Your task to perform on an android device: open sync settings in chrome Image 0: 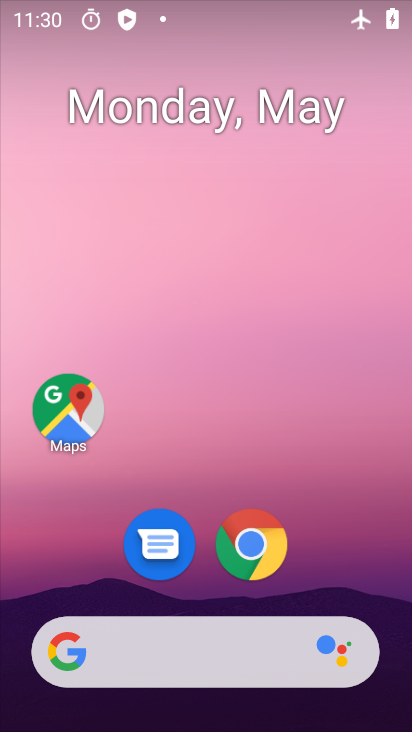
Step 0: drag from (353, 546) to (318, 190)
Your task to perform on an android device: open sync settings in chrome Image 1: 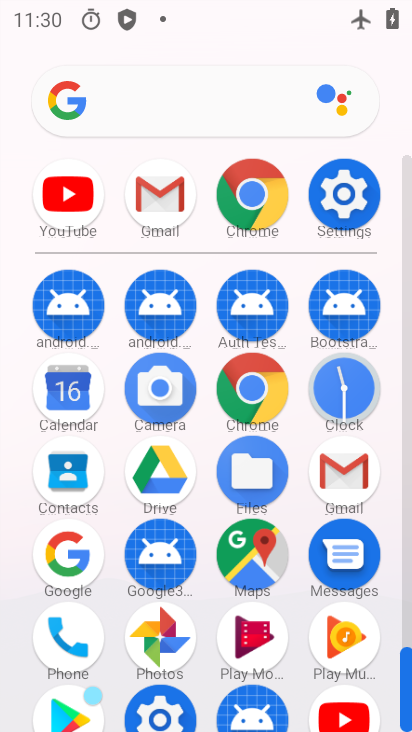
Step 1: click (251, 405)
Your task to perform on an android device: open sync settings in chrome Image 2: 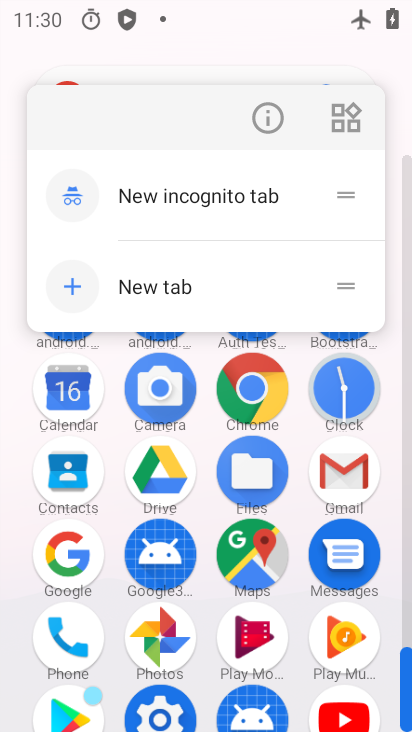
Step 2: click (252, 421)
Your task to perform on an android device: open sync settings in chrome Image 3: 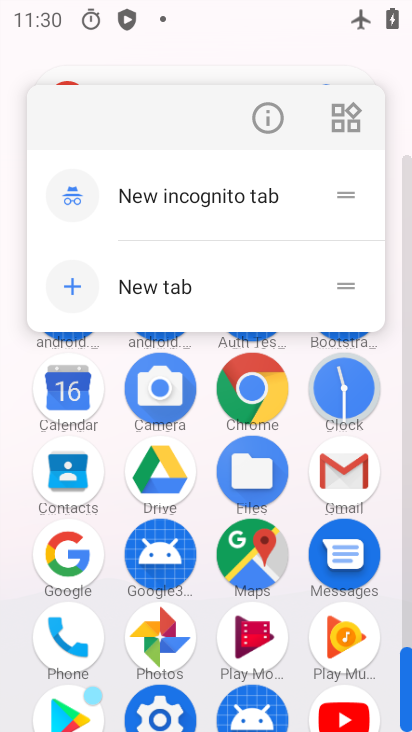
Step 3: click (252, 390)
Your task to perform on an android device: open sync settings in chrome Image 4: 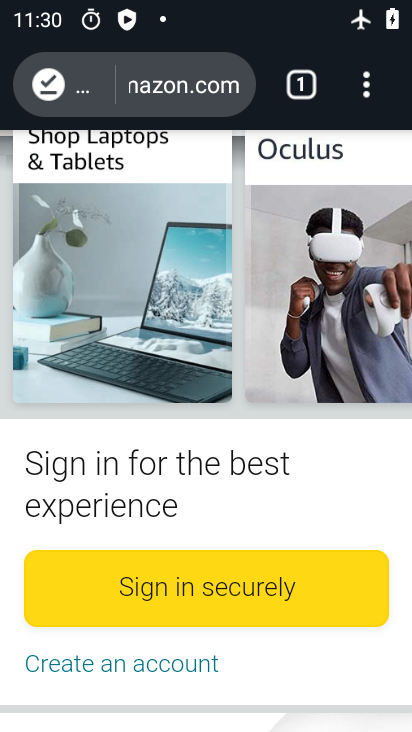
Step 4: drag from (366, 106) to (113, 608)
Your task to perform on an android device: open sync settings in chrome Image 5: 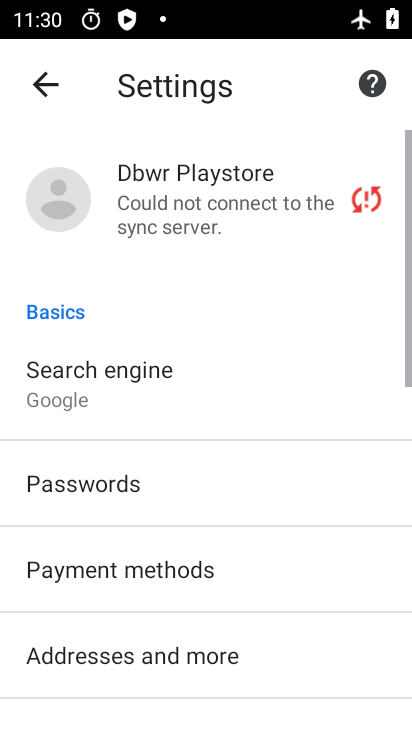
Step 5: drag from (248, 640) to (253, 307)
Your task to perform on an android device: open sync settings in chrome Image 6: 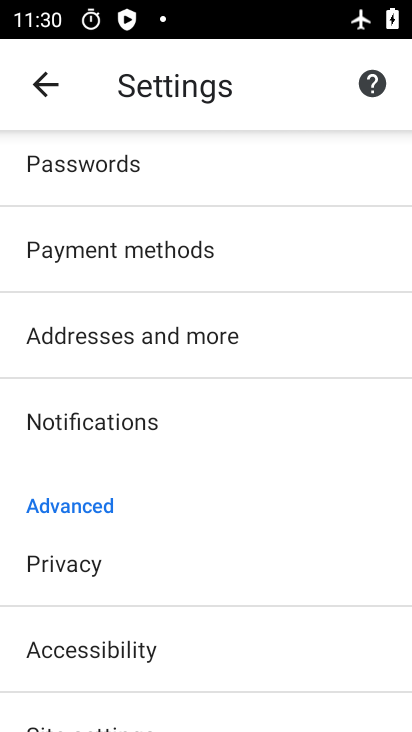
Step 6: drag from (188, 583) to (222, 323)
Your task to perform on an android device: open sync settings in chrome Image 7: 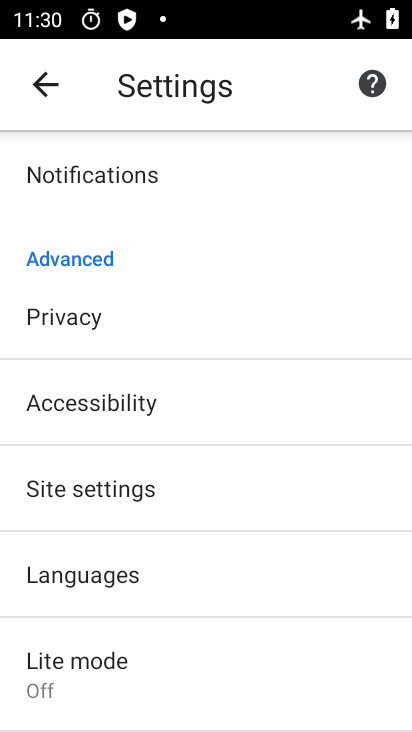
Step 7: drag from (183, 636) to (200, 336)
Your task to perform on an android device: open sync settings in chrome Image 8: 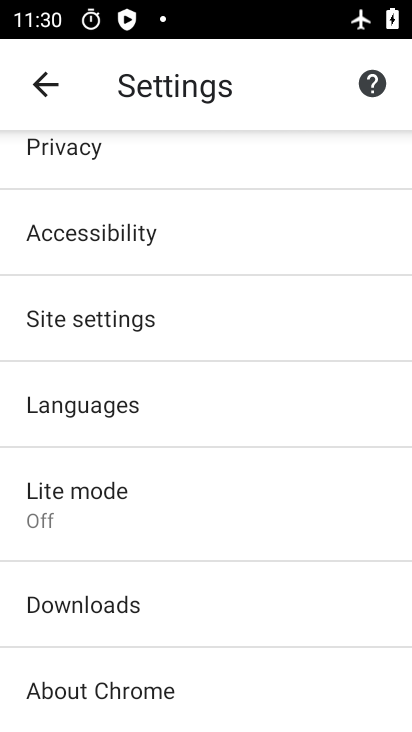
Step 8: click (108, 309)
Your task to perform on an android device: open sync settings in chrome Image 9: 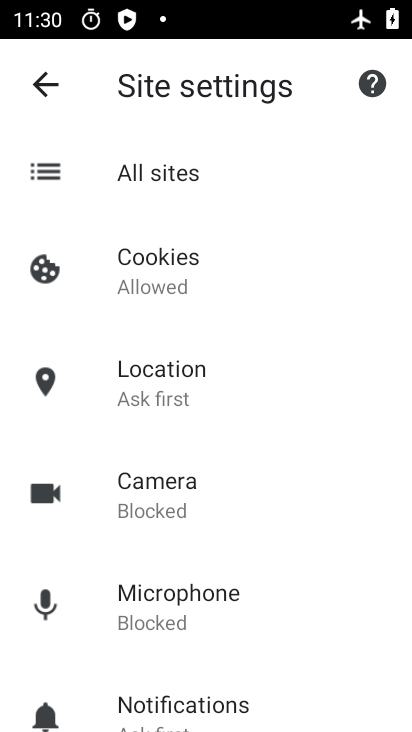
Step 9: drag from (247, 643) to (217, 298)
Your task to perform on an android device: open sync settings in chrome Image 10: 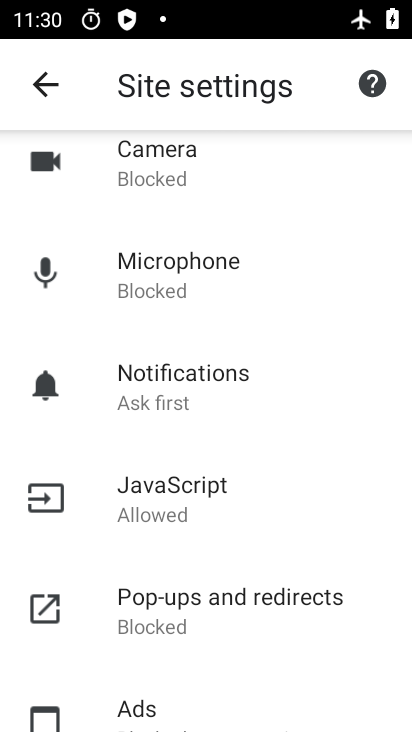
Step 10: drag from (217, 645) to (251, 388)
Your task to perform on an android device: open sync settings in chrome Image 11: 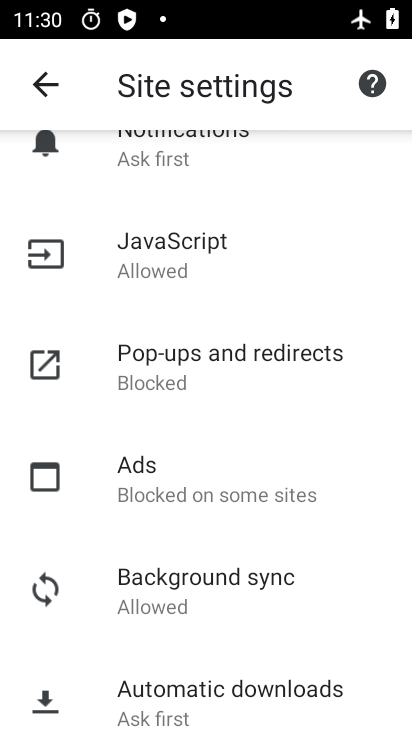
Step 11: click (218, 590)
Your task to perform on an android device: open sync settings in chrome Image 12: 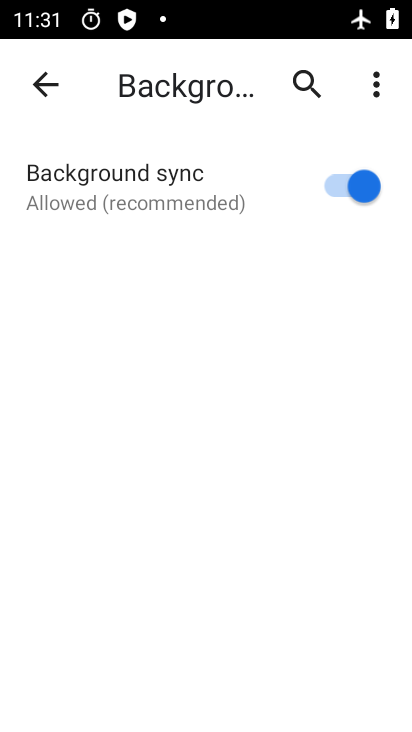
Step 12: task complete